Your task to perform on an android device: turn on bluetooth scan Image 0: 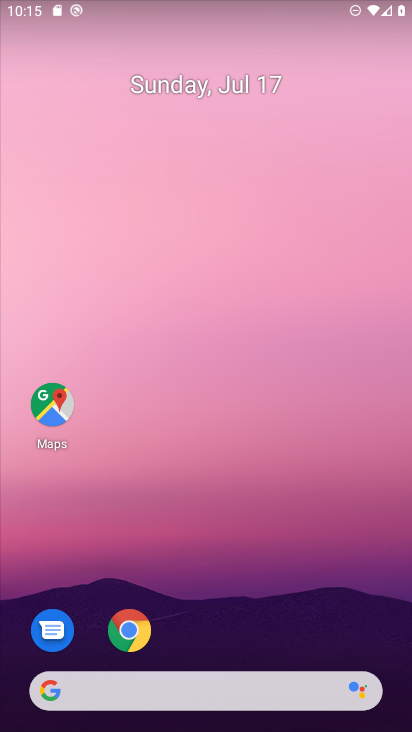
Step 0: drag from (295, 587) to (243, 244)
Your task to perform on an android device: turn on bluetooth scan Image 1: 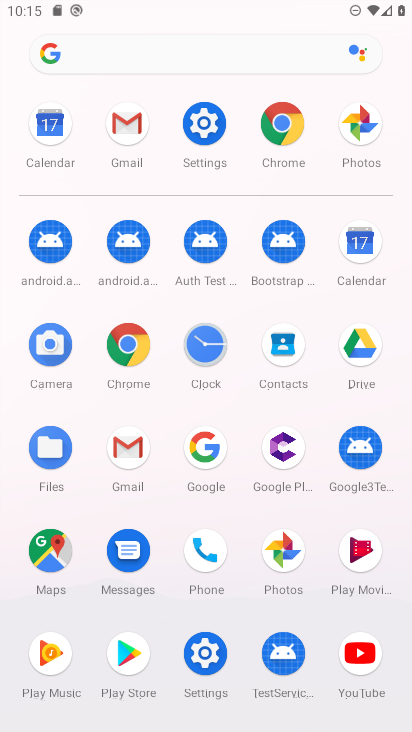
Step 1: click (210, 122)
Your task to perform on an android device: turn on bluetooth scan Image 2: 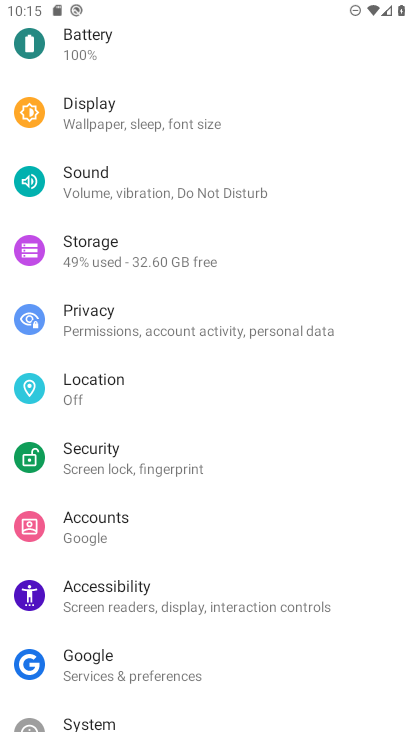
Step 2: drag from (148, 96) to (128, 712)
Your task to perform on an android device: turn on bluetooth scan Image 3: 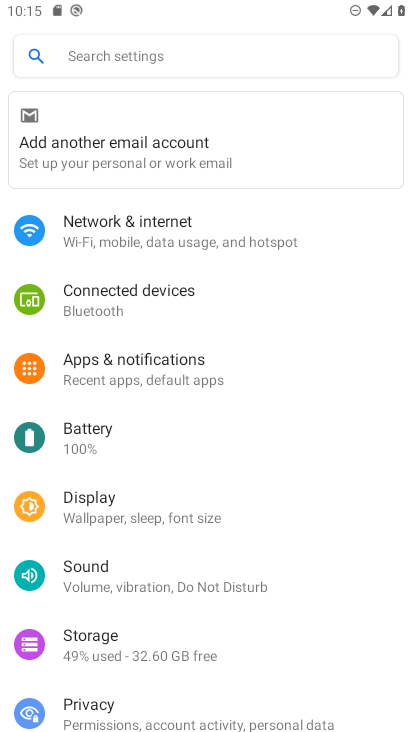
Step 3: click (312, 57)
Your task to perform on an android device: turn on bluetooth scan Image 4: 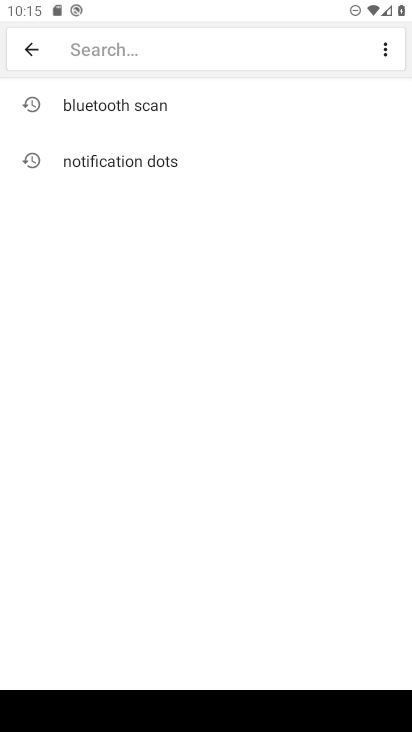
Step 4: type " bluetooth scan "
Your task to perform on an android device: turn on bluetooth scan Image 5: 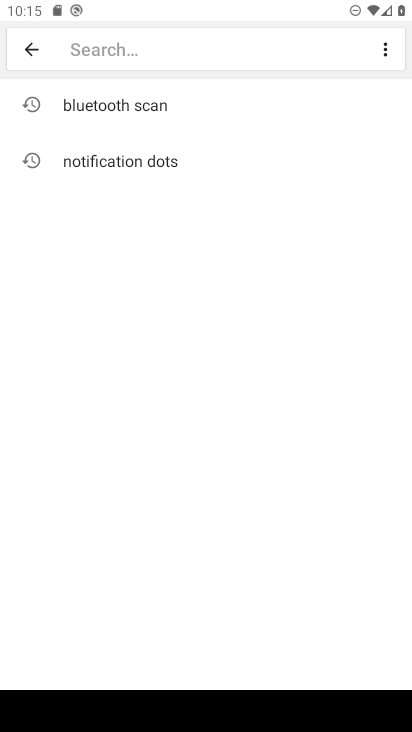
Step 5: click (167, 107)
Your task to perform on an android device: turn on bluetooth scan Image 6: 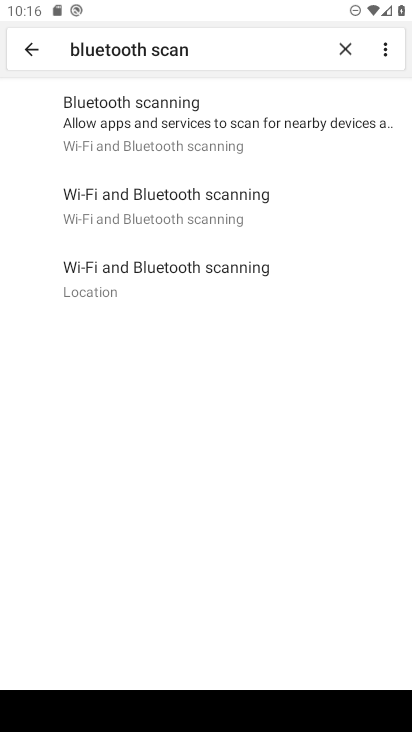
Step 6: click (242, 121)
Your task to perform on an android device: turn on bluetooth scan Image 7: 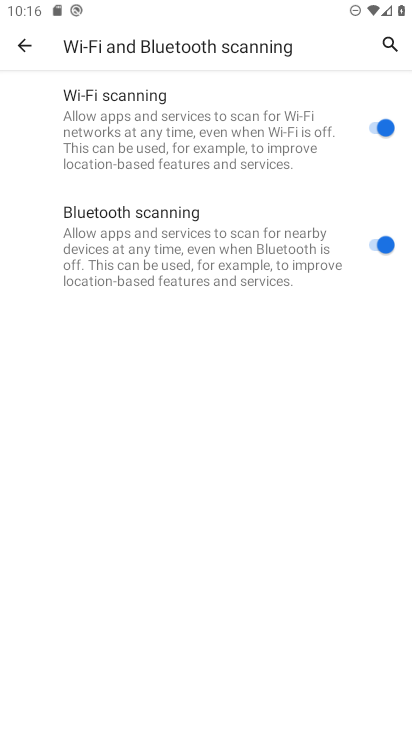
Step 7: task complete